Your task to perform on an android device: refresh tabs in the chrome app Image 0: 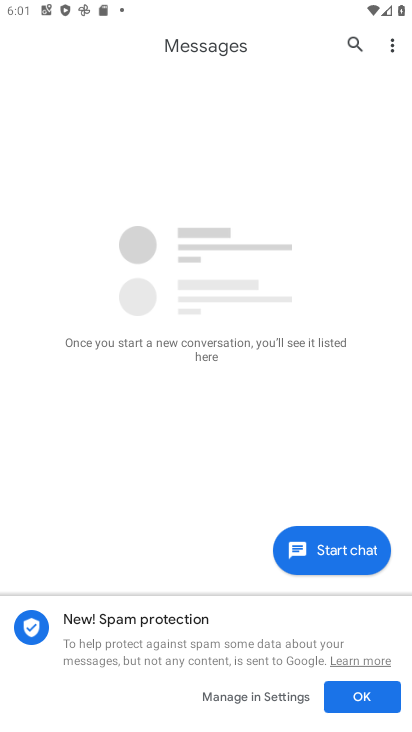
Step 0: press home button
Your task to perform on an android device: refresh tabs in the chrome app Image 1: 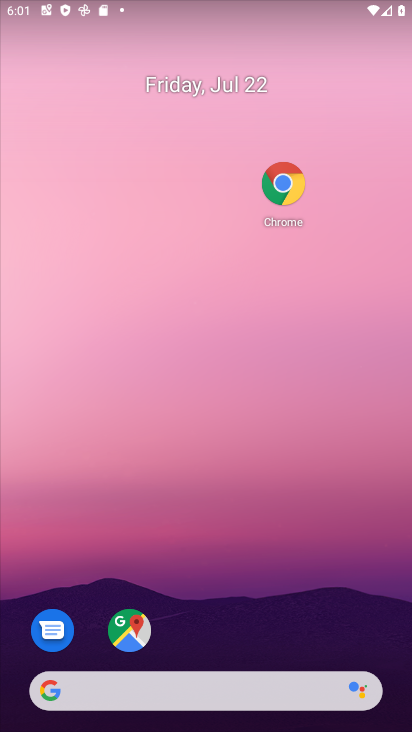
Step 1: click (286, 191)
Your task to perform on an android device: refresh tabs in the chrome app Image 2: 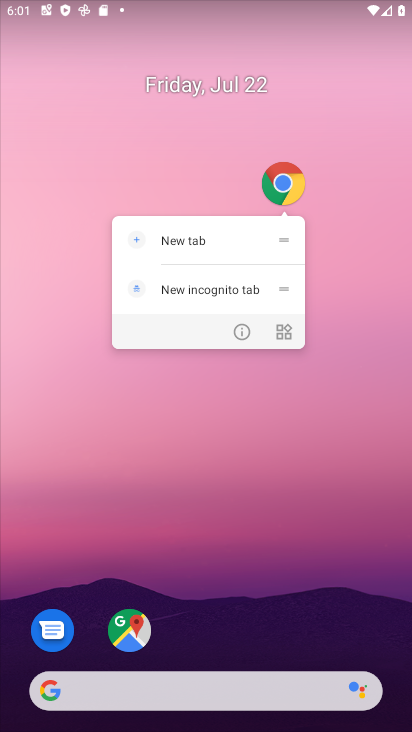
Step 2: click (280, 196)
Your task to perform on an android device: refresh tabs in the chrome app Image 3: 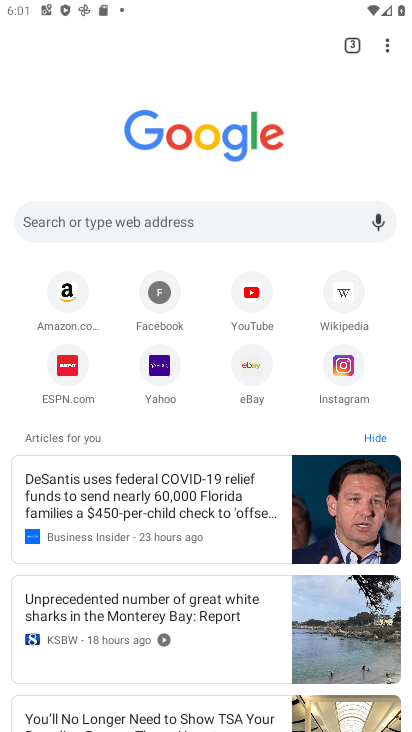
Step 3: click (386, 48)
Your task to perform on an android device: refresh tabs in the chrome app Image 4: 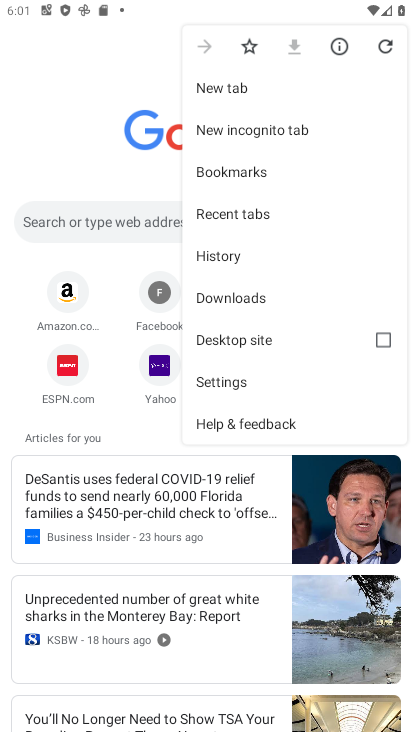
Step 4: click (379, 48)
Your task to perform on an android device: refresh tabs in the chrome app Image 5: 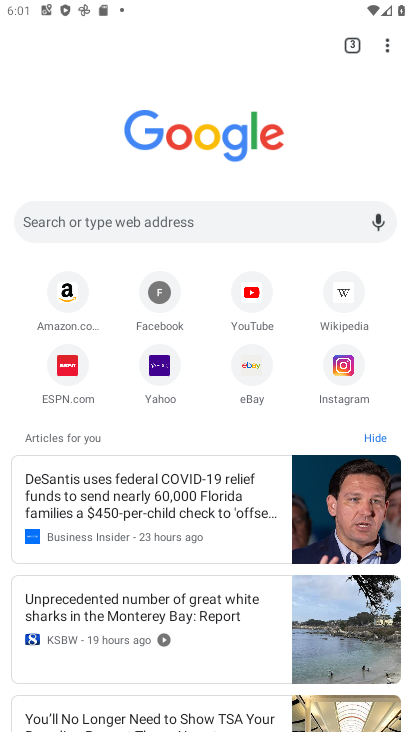
Step 5: task complete